Your task to perform on an android device: Open calendar and show me the first week of next month Image 0: 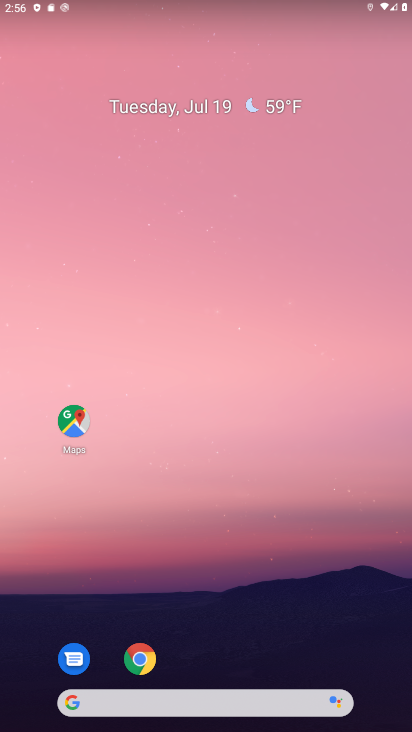
Step 0: drag from (205, 700) to (276, 206)
Your task to perform on an android device: Open calendar and show me the first week of next month Image 1: 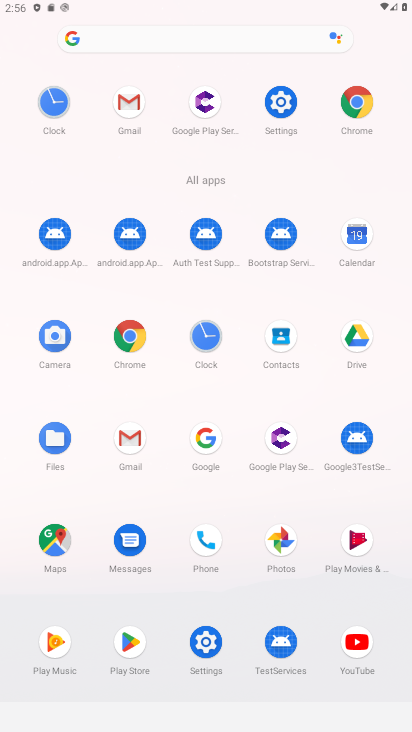
Step 1: click (358, 233)
Your task to perform on an android device: Open calendar and show me the first week of next month Image 2: 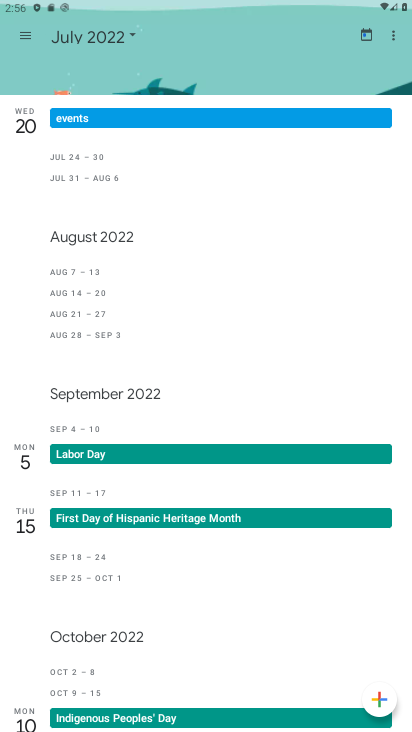
Step 2: click (369, 35)
Your task to perform on an android device: Open calendar and show me the first week of next month Image 3: 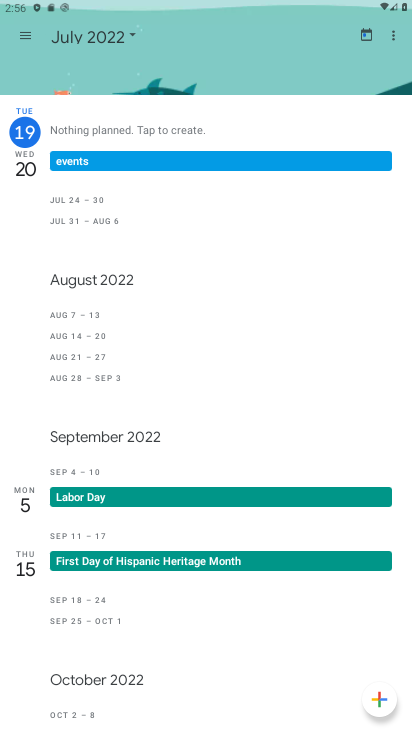
Step 3: click (132, 34)
Your task to perform on an android device: Open calendar and show me the first week of next month Image 4: 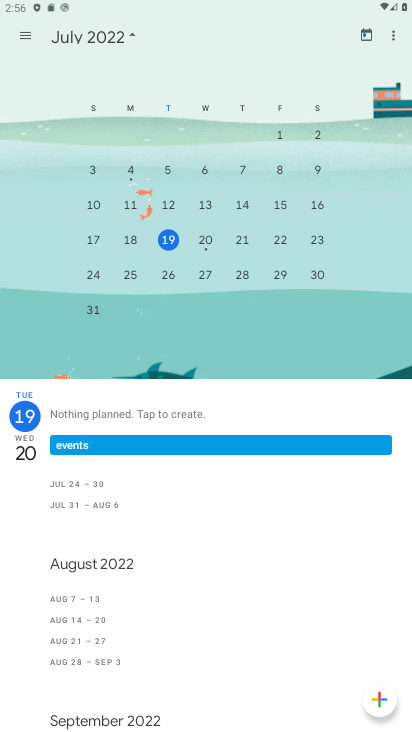
Step 4: drag from (361, 252) to (3, 260)
Your task to perform on an android device: Open calendar and show me the first week of next month Image 5: 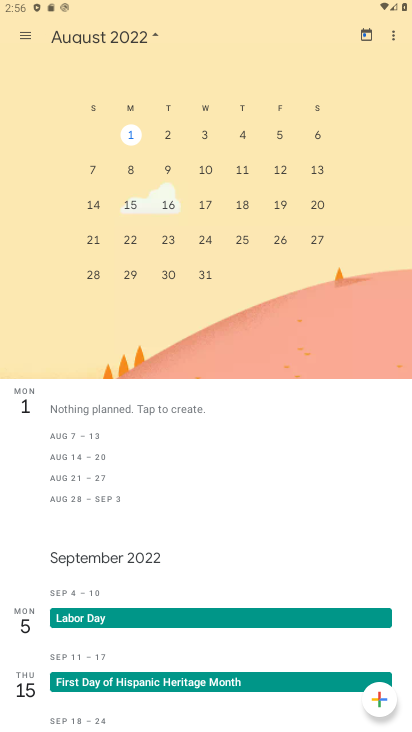
Step 5: click (125, 143)
Your task to perform on an android device: Open calendar and show me the first week of next month Image 6: 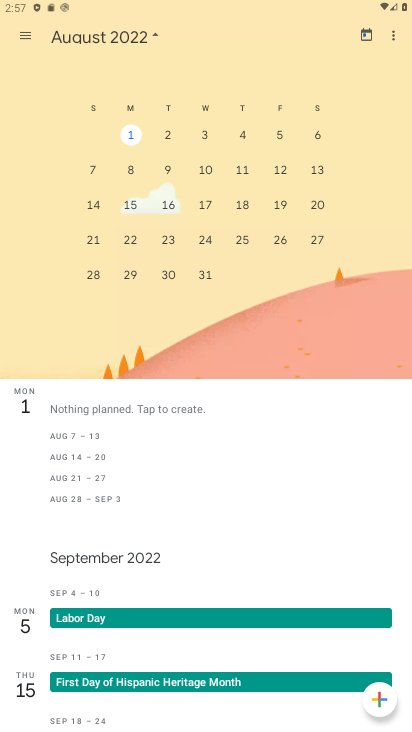
Step 6: click (19, 35)
Your task to perform on an android device: Open calendar and show me the first week of next month Image 7: 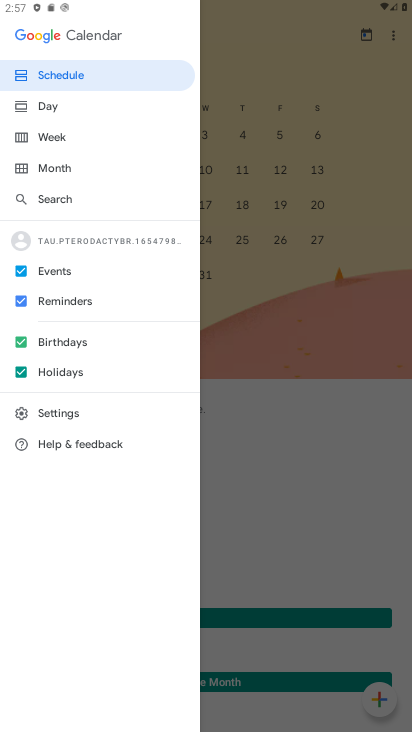
Step 7: click (67, 138)
Your task to perform on an android device: Open calendar and show me the first week of next month Image 8: 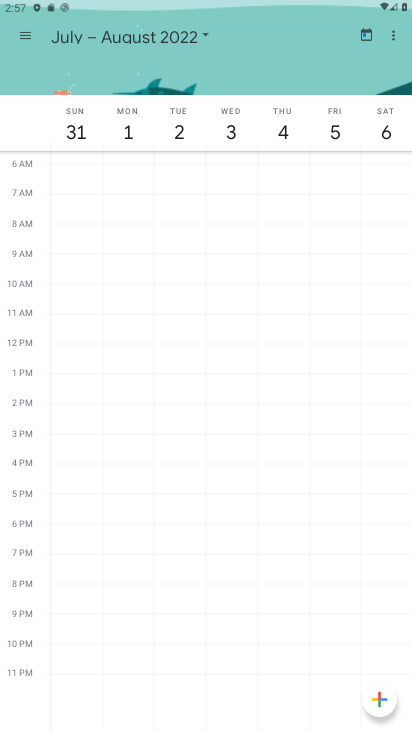
Step 8: task complete